Your task to perform on an android device: Go to Wikipedia Image 0: 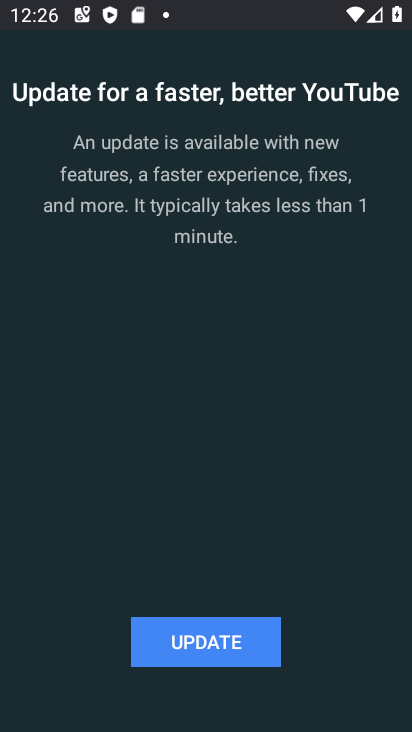
Step 0: drag from (220, 627) to (240, 343)
Your task to perform on an android device: Go to Wikipedia Image 1: 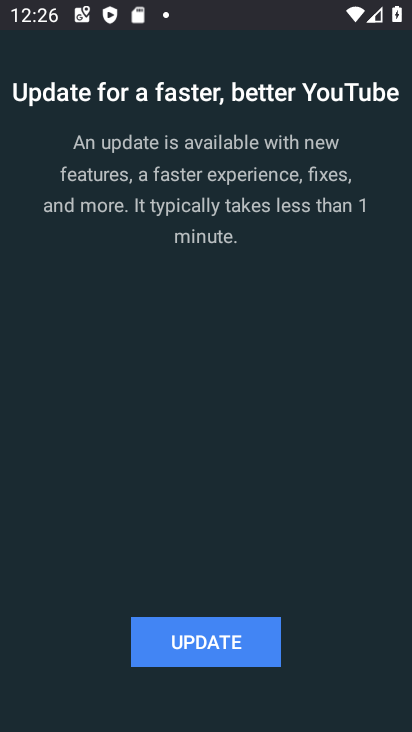
Step 1: press home button
Your task to perform on an android device: Go to Wikipedia Image 2: 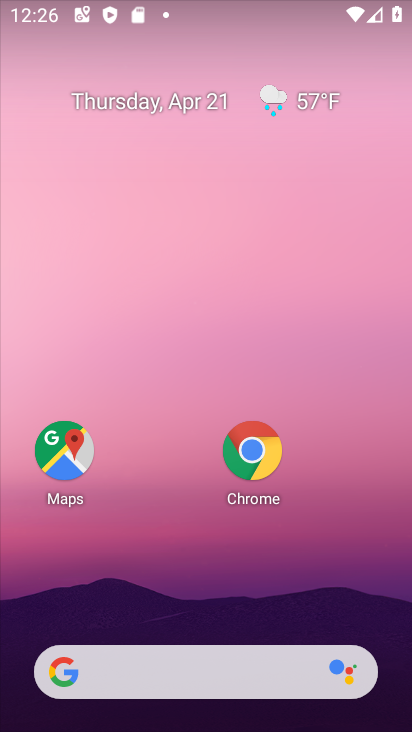
Step 2: click (255, 447)
Your task to perform on an android device: Go to Wikipedia Image 3: 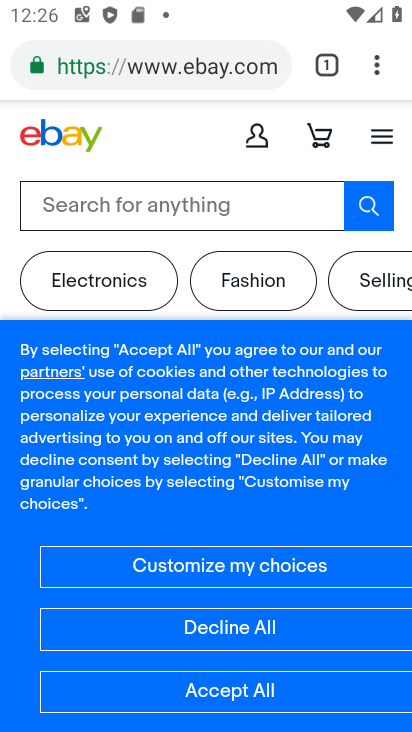
Step 3: click (366, 57)
Your task to perform on an android device: Go to Wikipedia Image 4: 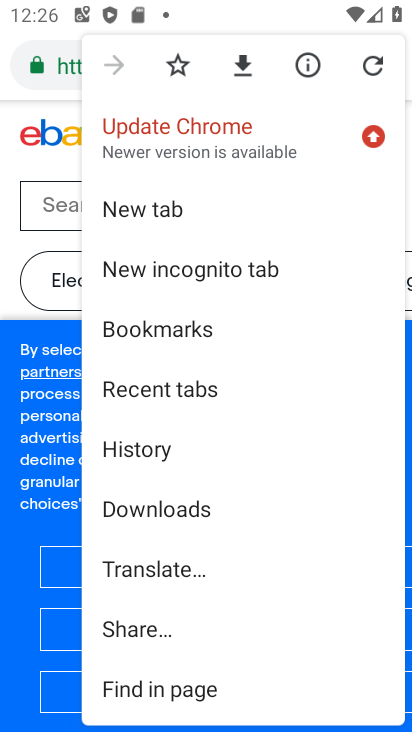
Step 4: click (183, 200)
Your task to perform on an android device: Go to Wikipedia Image 5: 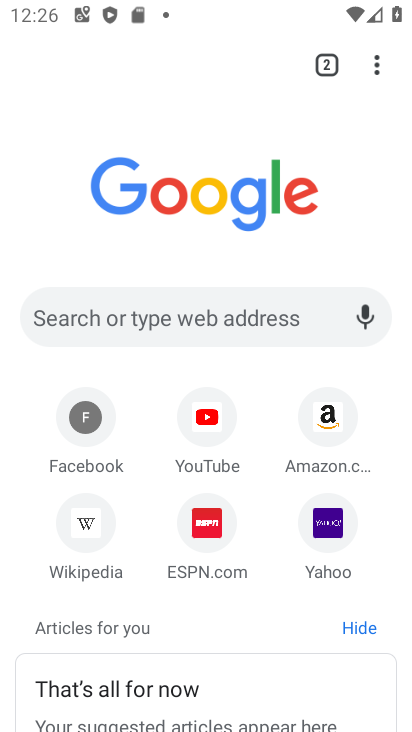
Step 5: click (86, 512)
Your task to perform on an android device: Go to Wikipedia Image 6: 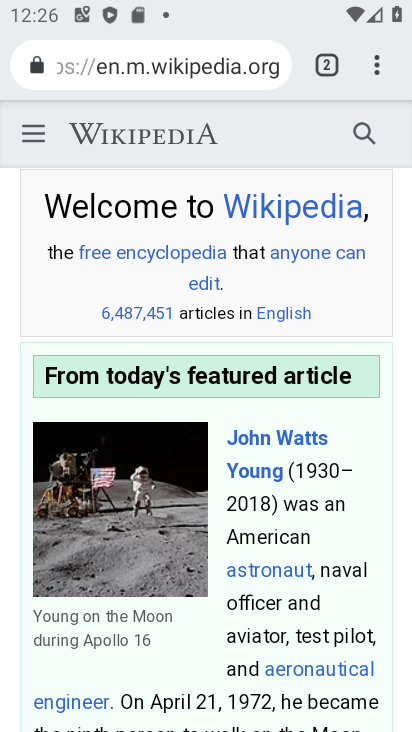
Step 6: task complete